Your task to perform on an android device: Go to calendar. Show me events next week Image 0: 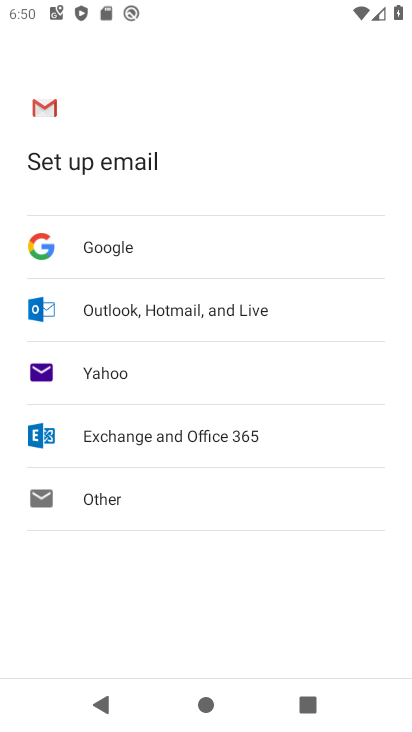
Step 0: press home button
Your task to perform on an android device: Go to calendar. Show me events next week Image 1: 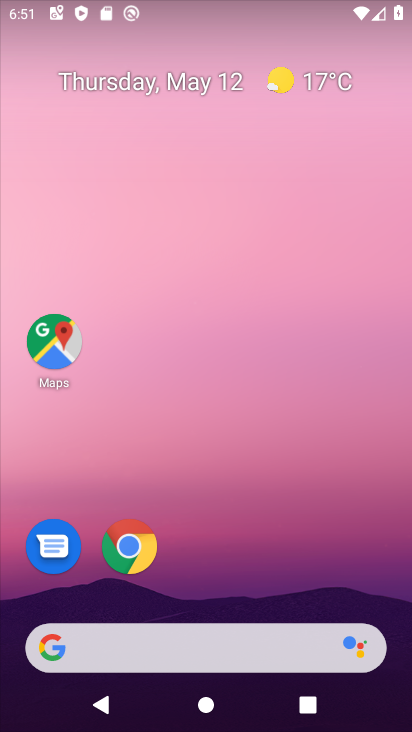
Step 1: drag from (246, 562) to (166, 117)
Your task to perform on an android device: Go to calendar. Show me events next week Image 2: 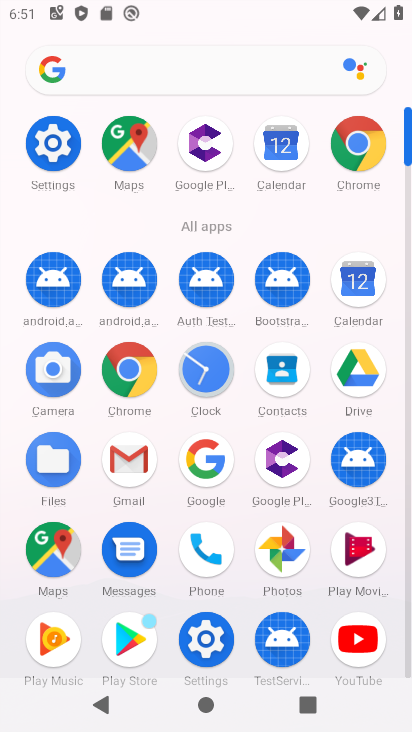
Step 2: click (351, 279)
Your task to perform on an android device: Go to calendar. Show me events next week Image 3: 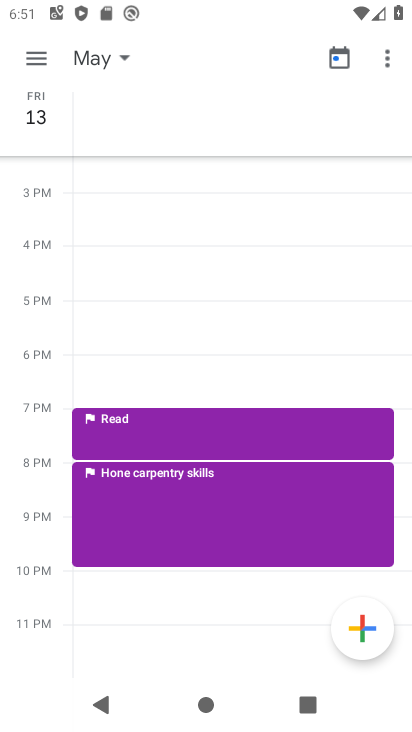
Step 3: click (32, 61)
Your task to perform on an android device: Go to calendar. Show me events next week Image 4: 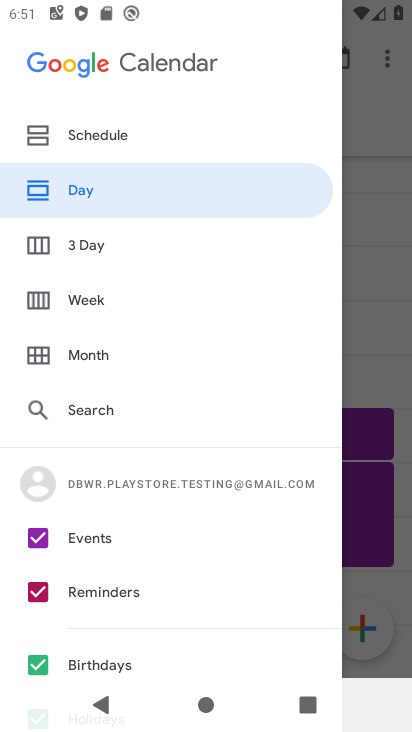
Step 4: click (79, 298)
Your task to perform on an android device: Go to calendar. Show me events next week Image 5: 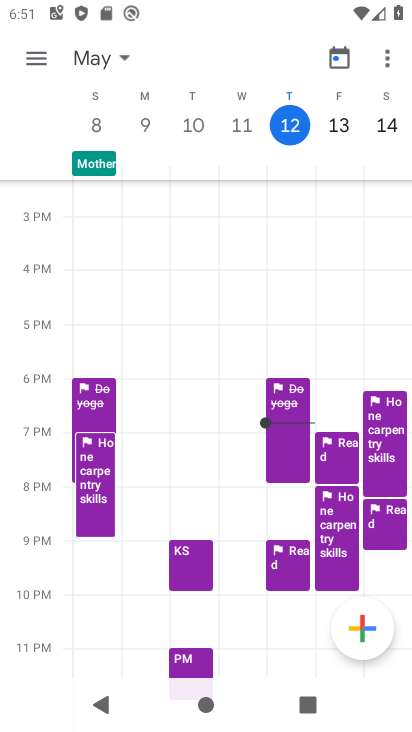
Step 5: click (126, 50)
Your task to perform on an android device: Go to calendar. Show me events next week Image 6: 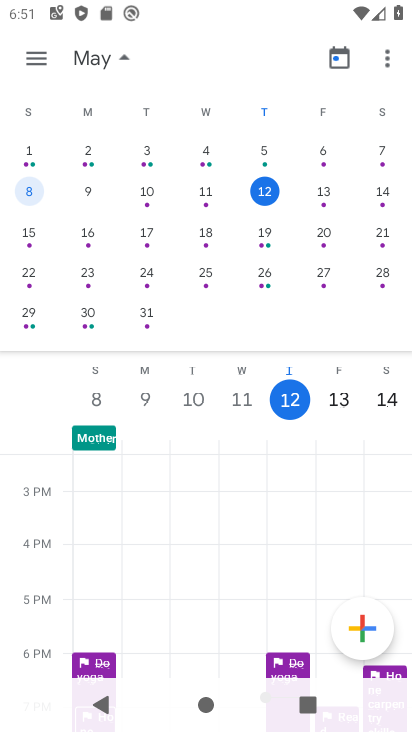
Step 6: click (144, 229)
Your task to perform on an android device: Go to calendar. Show me events next week Image 7: 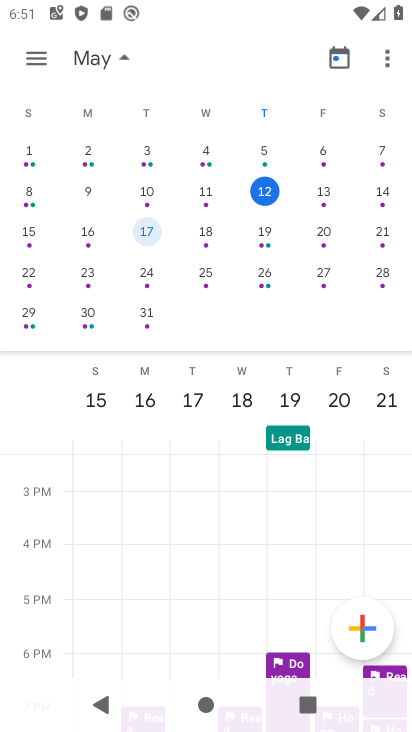
Step 7: task complete